Your task to perform on an android device: Go to settings Image 0: 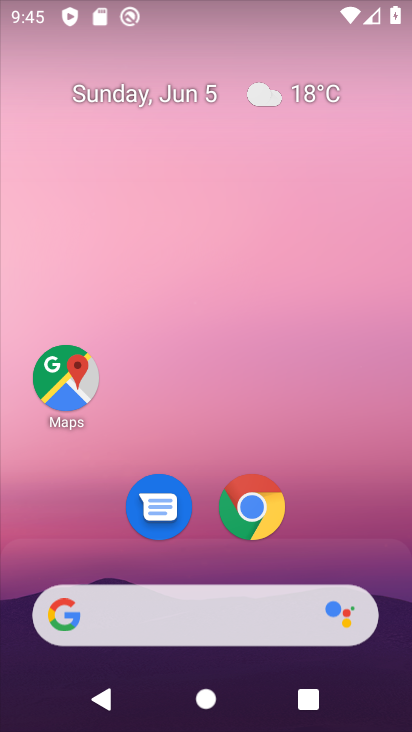
Step 0: drag from (197, 565) to (247, 4)
Your task to perform on an android device: Go to settings Image 1: 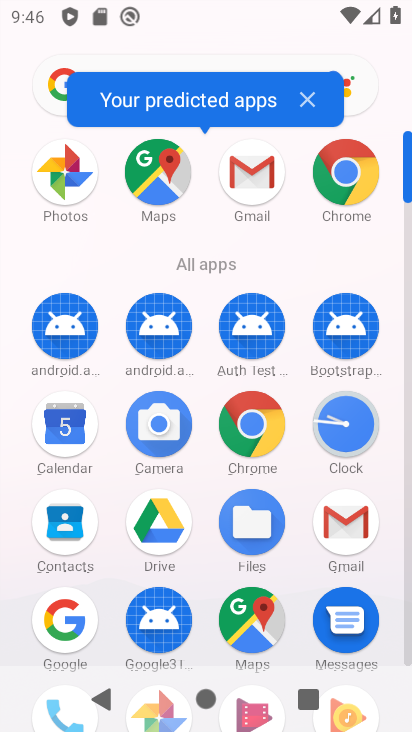
Step 1: drag from (211, 465) to (269, 2)
Your task to perform on an android device: Go to settings Image 2: 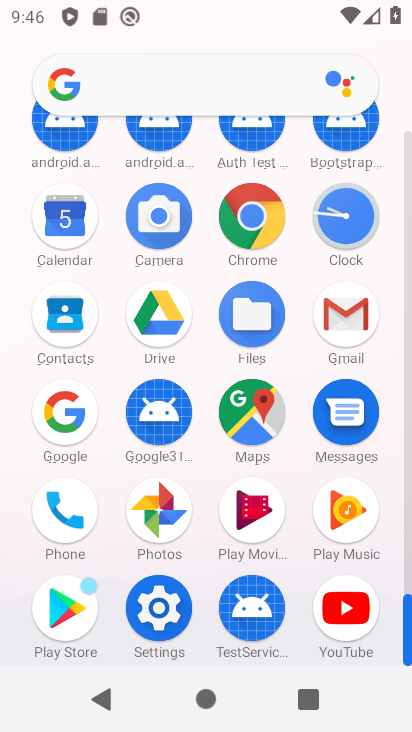
Step 2: click (170, 628)
Your task to perform on an android device: Go to settings Image 3: 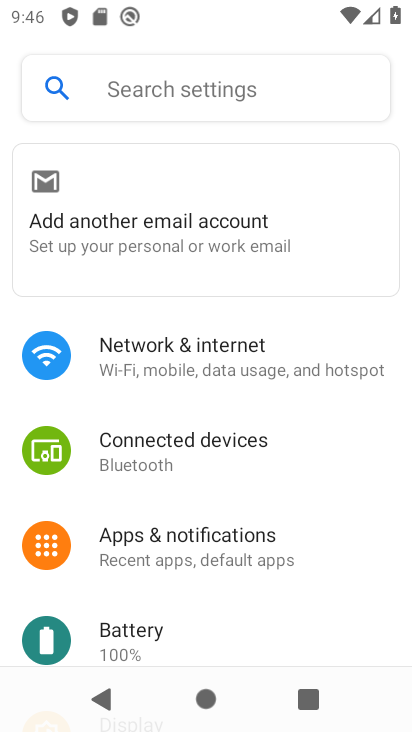
Step 3: task complete